Your task to perform on an android device: Open Google Image 0: 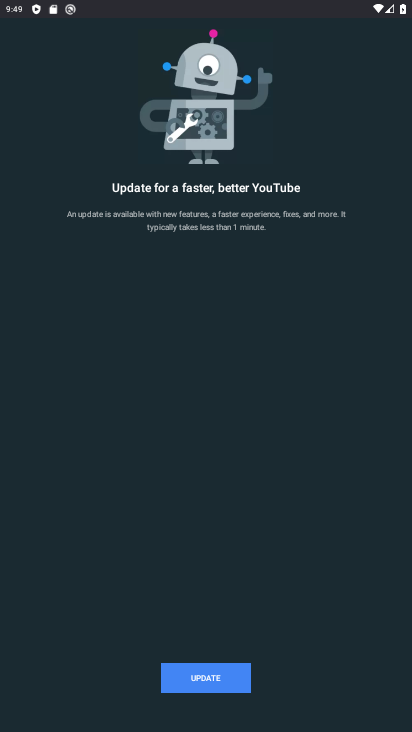
Step 0: press home button
Your task to perform on an android device: Open Google Image 1: 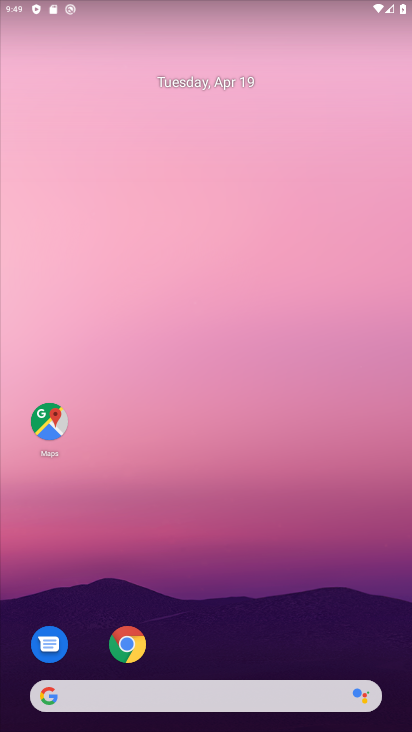
Step 1: drag from (198, 475) to (212, 101)
Your task to perform on an android device: Open Google Image 2: 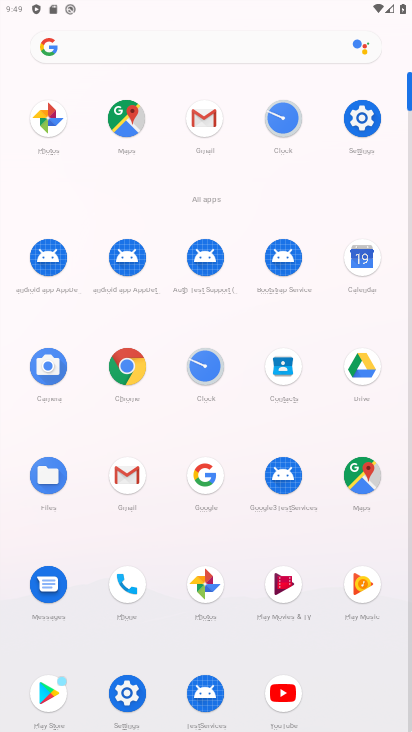
Step 2: click (202, 479)
Your task to perform on an android device: Open Google Image 3: 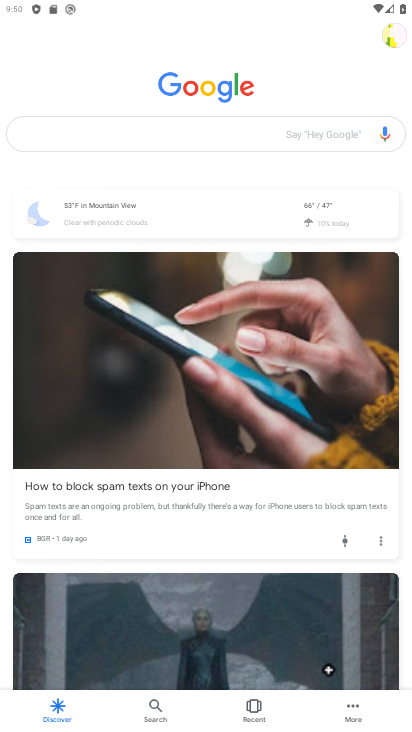
Step 3: task complete